Your task to perform on an android device: turn on priority inbox in the gmail app Image 0: 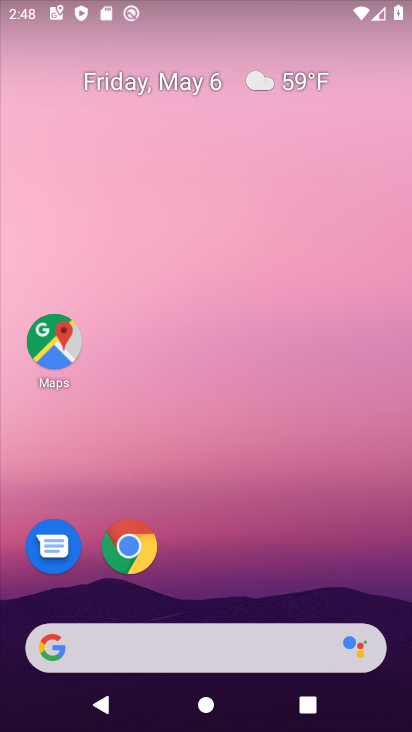
Step 0: drag from (244, 584) to (246, 144)
Your task to perform on an android device: turn on priority inbox in the gmail app Image 1: 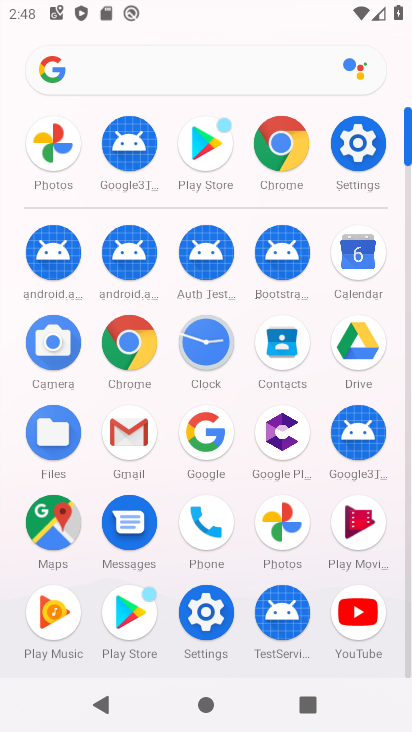
Step 1: click (127, 434)
Your task to perform on an android device: turn on priority inbox in the gmail app Image 2: 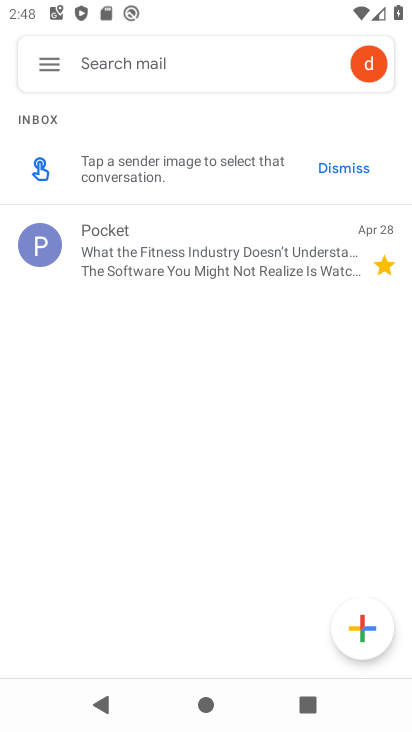
Step 2: click (51, 70)
Your task to perform on an android device: turn on priority inbox in the gmail app Image 3: 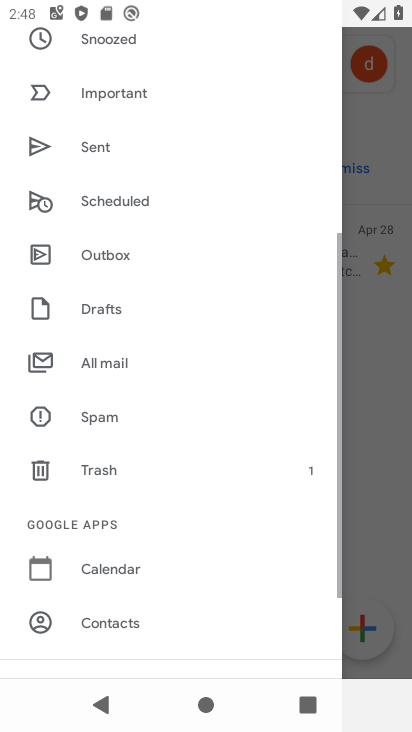
Step 3: drag from (172, 546) to (218, 223)
Your task to perform on an android device: turn on priority inbox in the gmail app Image 4: 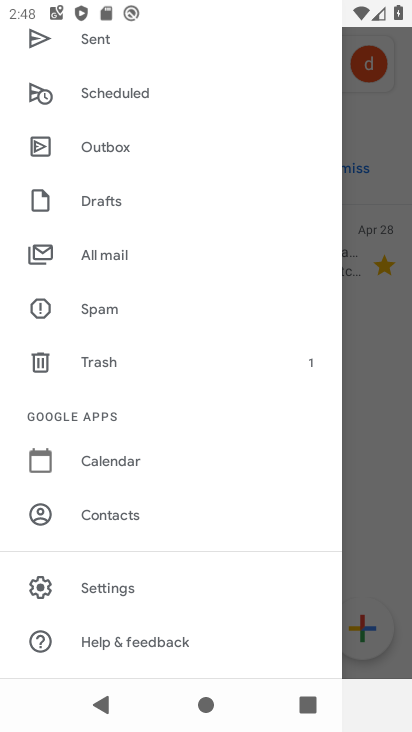
Step 4: click (112, 581)
Your task to perform on an android device: turn on priority inbox in the gmail app Image 5: 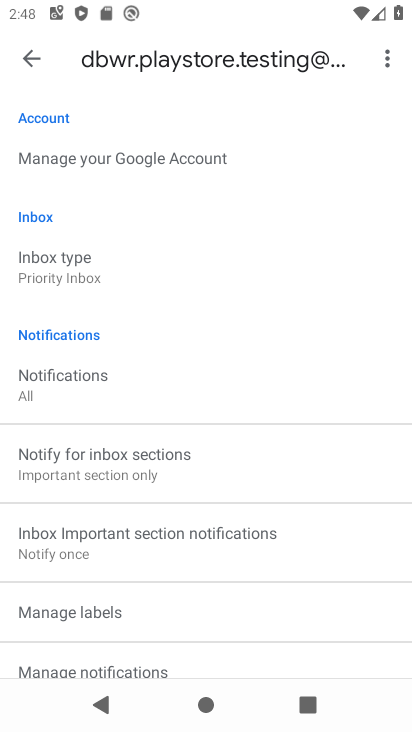
Step 5: task complete